Your task to perform on an android device: open sync settings in chrome Image 0: 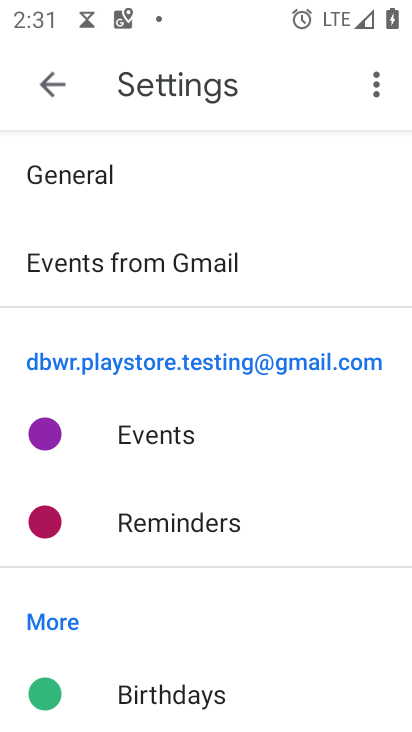
Step 0: press back button
Your task to perform on an android device: open sync settings in chrome Image 1: 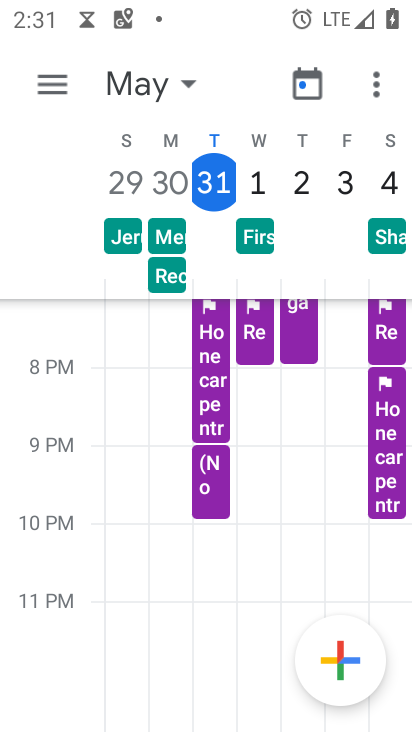
Step 1: press home button
Your task to perform on an android device: open sync settings in chrome Image 2: 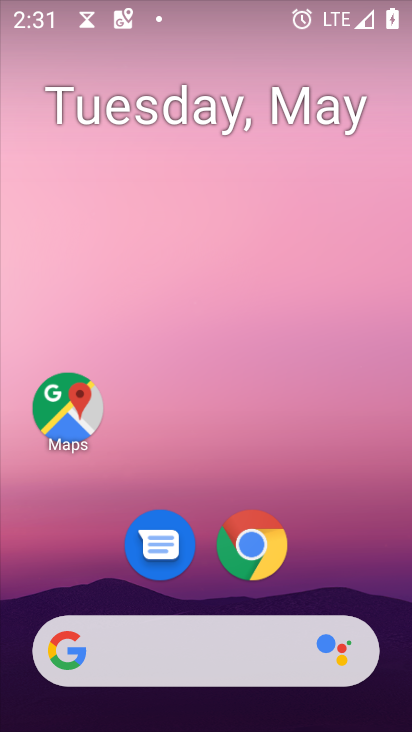
Step 2: drag from (323, 470) to (231, 24)
Your task to perform on an android device: open sync settings in chrome Image 3: 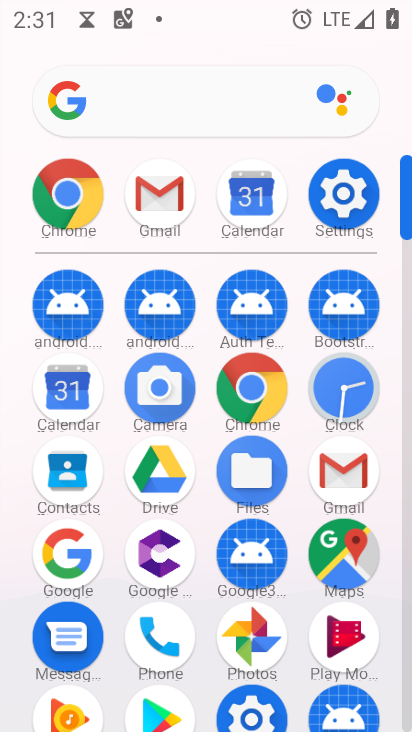
Step 3: drag from (0, 569) to (20, 156)
Your task to perform on an android device: open sync settings in chrome Image 4: 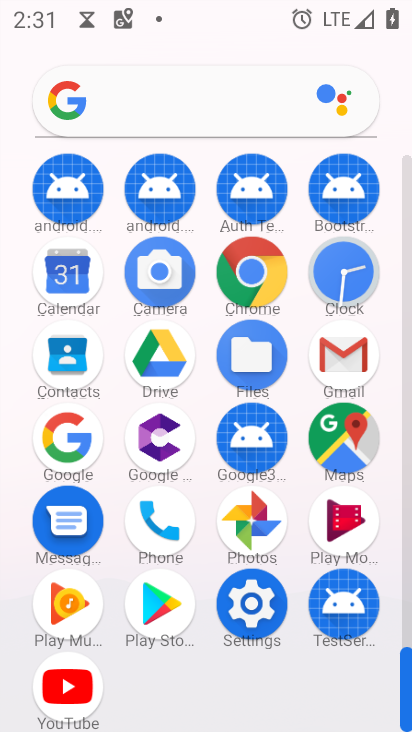
Step 4: click (257, 266)
Your task to perform on an android device: open sync settings in chrome Image 5: 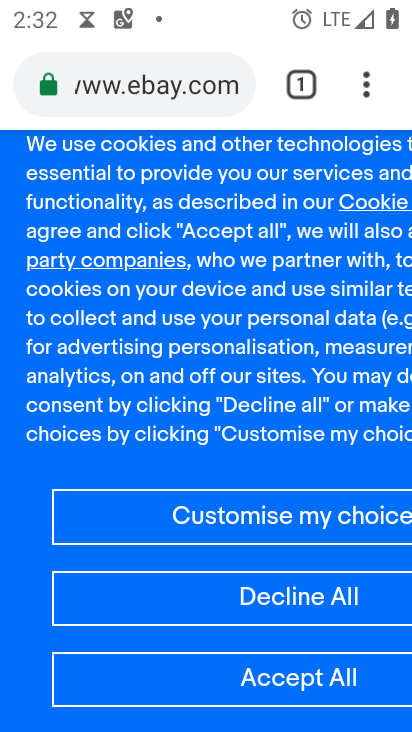
Step 5: drag from (365, 90) to (158, 597)
Your task to perform on an android device: open sync settings in chrome Image 6: 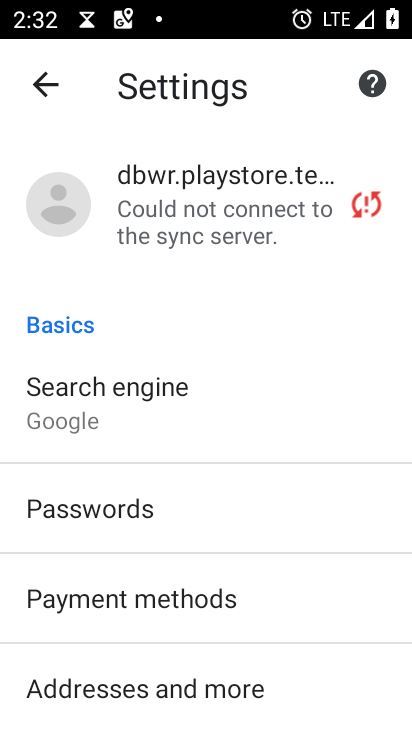
Step 6: click (231, 602)
Your task to perform on an android device: open sync settings in chrome Image 7: 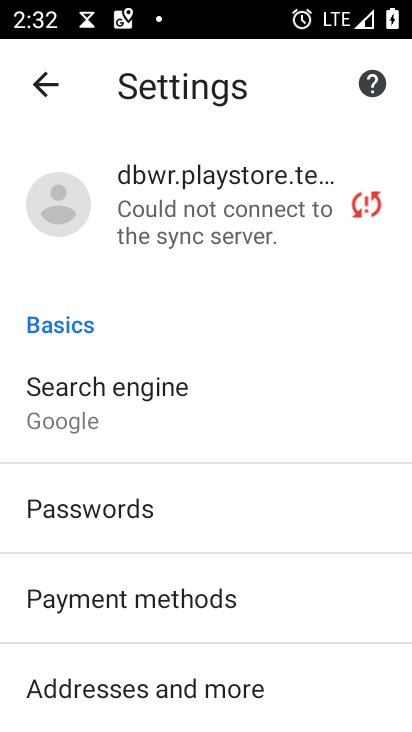
Step 7: click (173, 174)
Your task to perform on an android device: open sync settings in chrome Image 8: 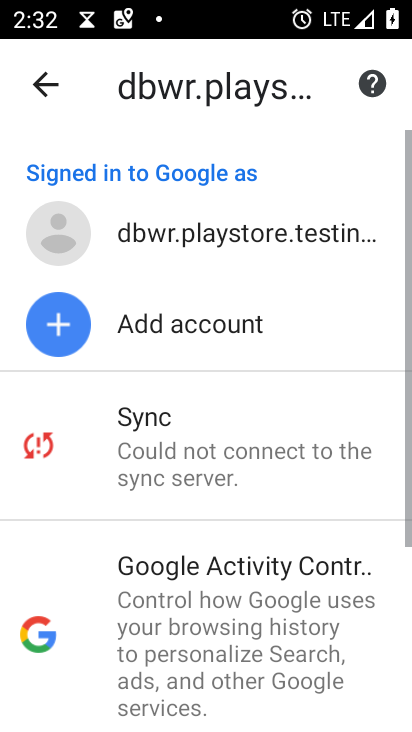
Step 8: click (171, 413)
Your task to perform on an android device: open sync settings in chrome Image 9: 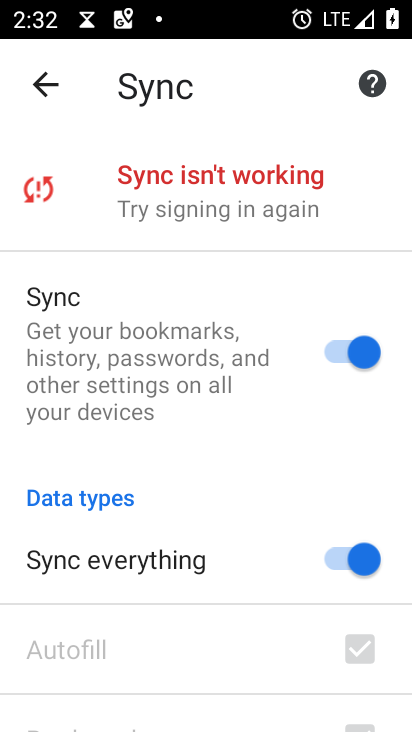
Step 9: task complete